Your task to perform on an android device: create a new album in the google photos Image 0: 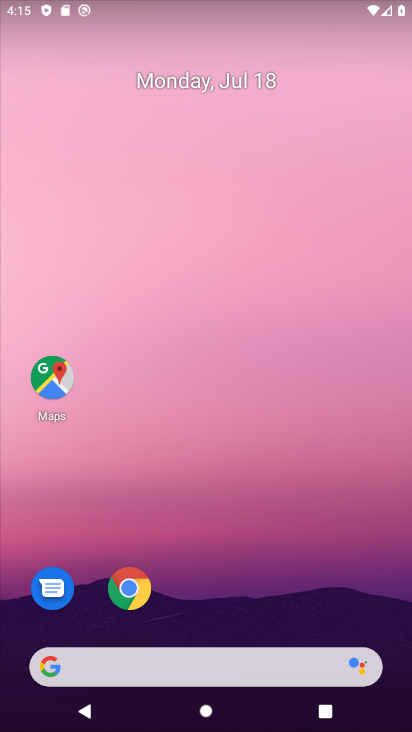
Step 0: press home button
Your task to perform on an android device: create a new album in the google photos Image 1: 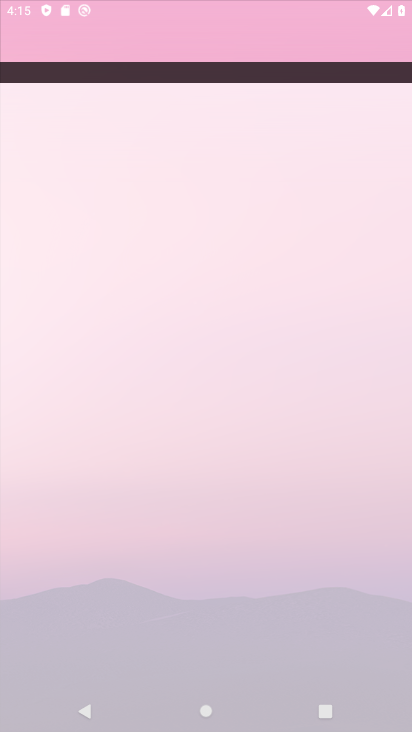
Step 1: click (239, 0)
Your task to perform on an android device: create a new album in the google photos Image 2: 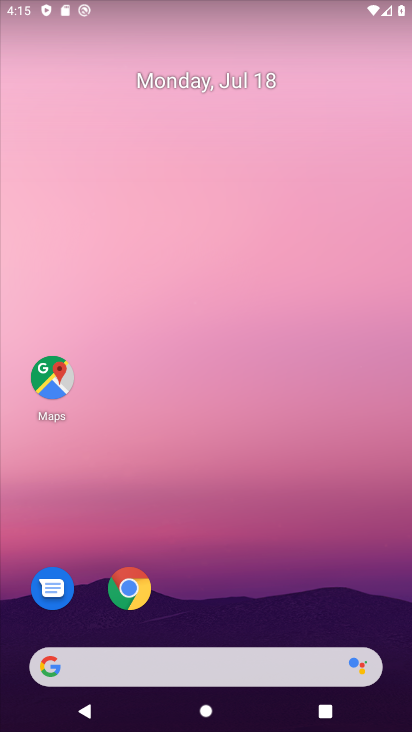
Step 2: drag from (206, 595) to (204, 70)
Your task to perform on an android device: create a new album in the google photos Image 3: 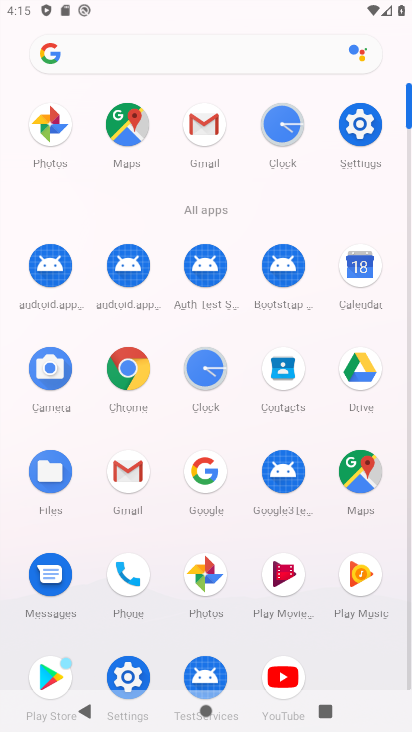
Step 3: click (207, 563)
Your task to perform on an android device: create a new album in the google photos Image 4: 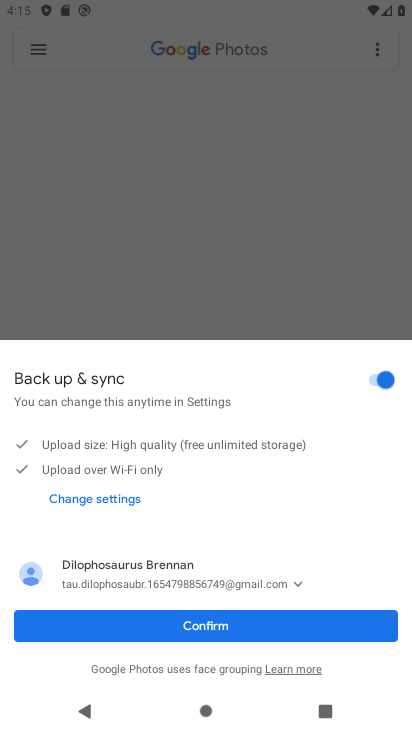
Step 4: click (222, 632)
Your task to perform on an android device: create a new album in the google photos Image 5: 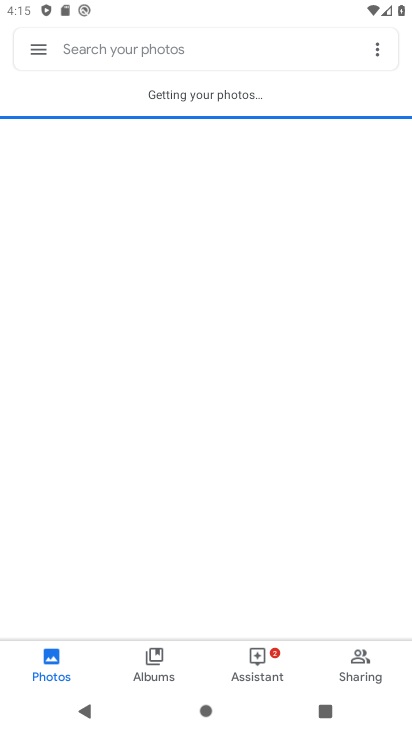
Step 5: click (373, 50)
Your task to perform on an android device: create a new album in the google photos Image 6: 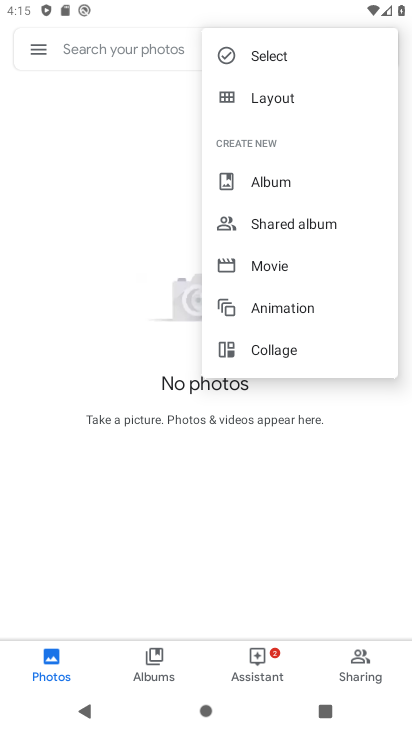
Step 6: click (266, 180)
Your task to perform on an android device: create a new album in the google photos Image 7: 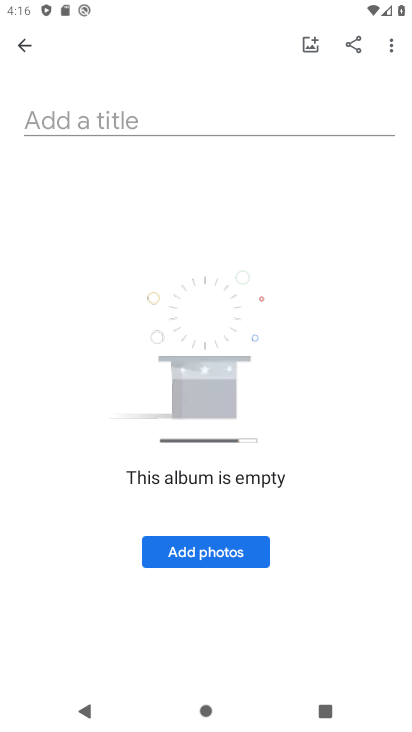
Step 7: click (209, 547)
Your task to perform on an android device: create a new album in the google photos Image 8: 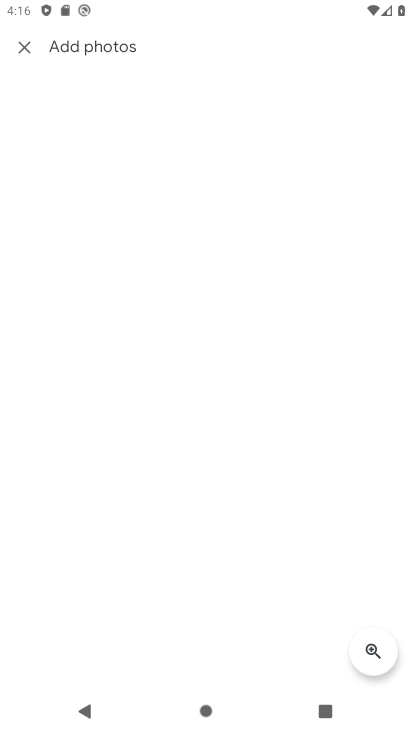
Step 8: task complete